Your task to perform on an android device: Go to accessibility settings Image 0: 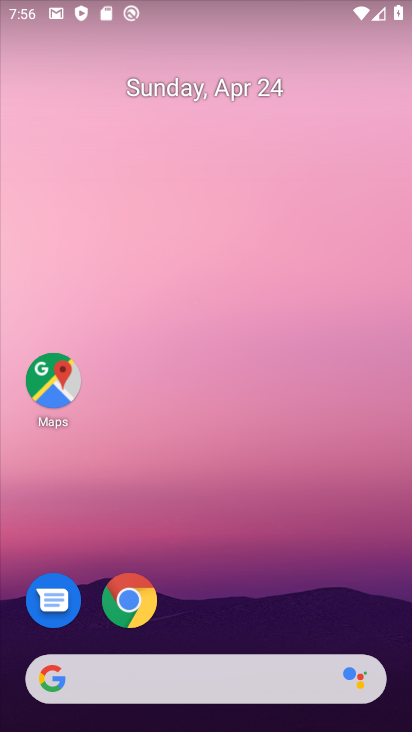
Step 0: drag from (297, 177) to (325, 28)
Your task to perform on an android device: Go to accessibility settings Image 1: 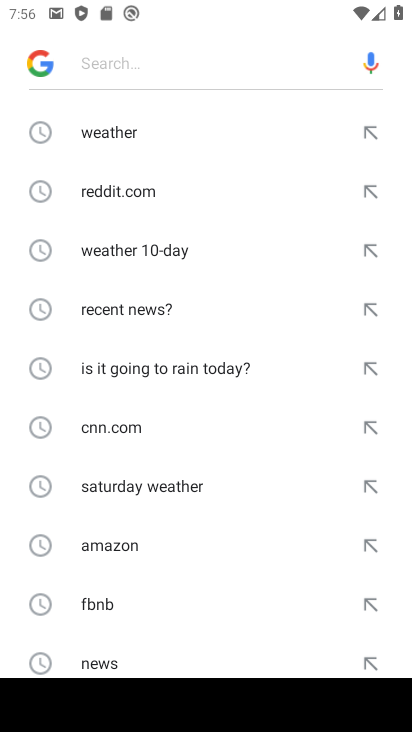
Step 1: press home button
Your task to perform on an android device: Go to accessibility settings Image 2: 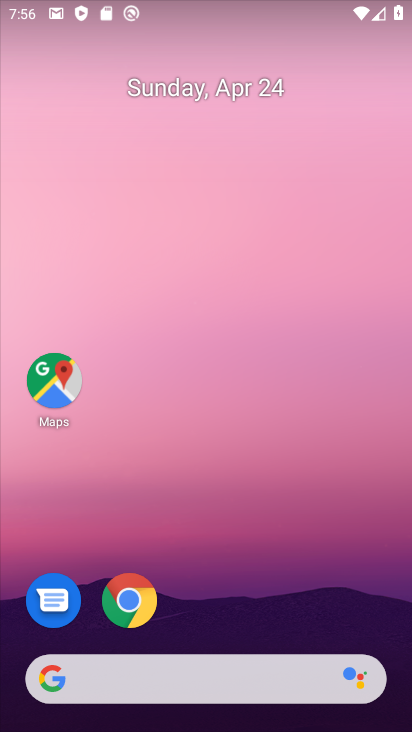
Step 2: drag from (229, 560) to (249, 6)
Your task to perform on an android device: Go to accessibility settings Image 3: 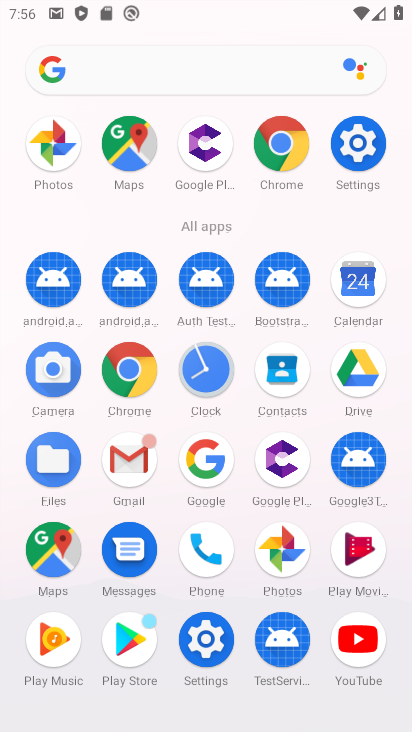
Step 3: click (351, 201)
Your task to perform on an android device: Go to accessibility settings Image 4: 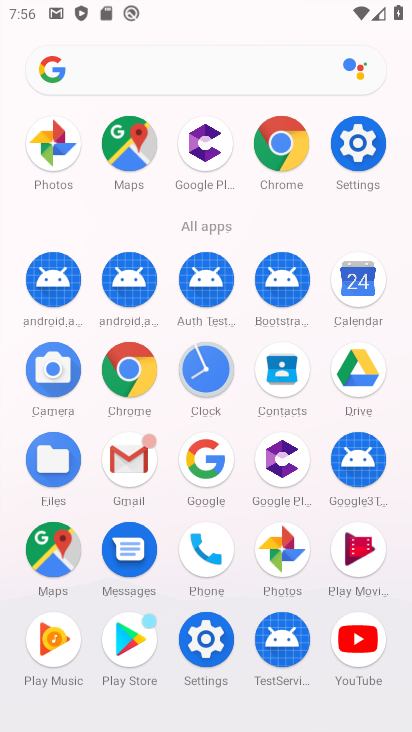
Step 4: click (361, 142)
Your task to perform on an android device: Go to accessibility settings Image 5: 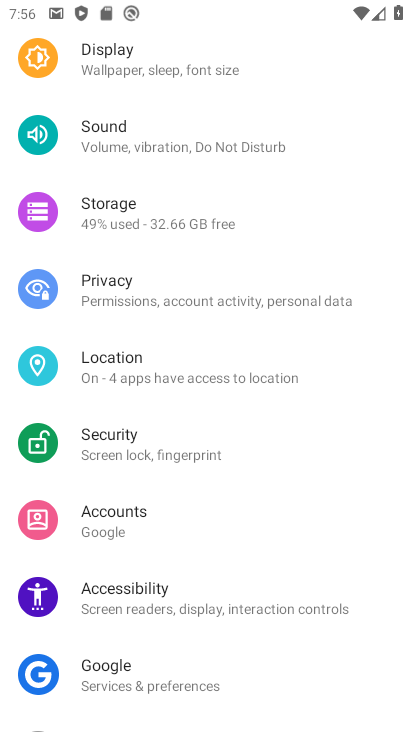
Step 5: click (135, 591)
Your task to perform on an android device: Go to accessibility settings Image 6: 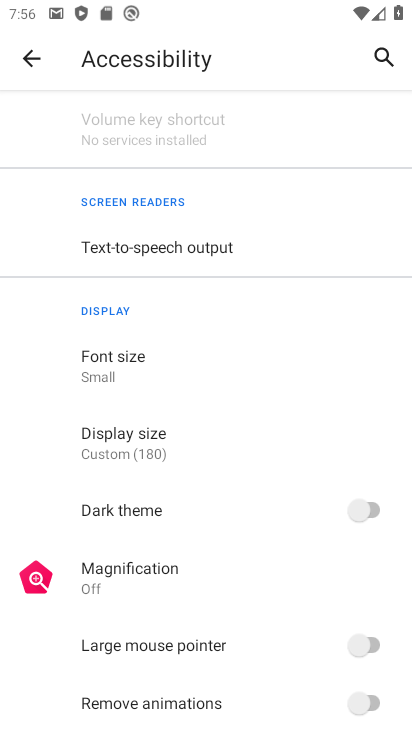
Step 6: task complete